Your task to perform on an android device: clear history in the chrome app Image 0: 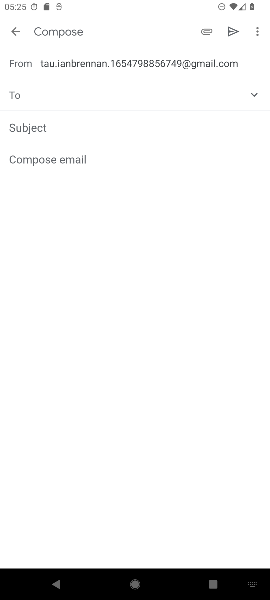
Step 0: press home button
Your task to perform on an android device: clear history in the chrome app Image 1: 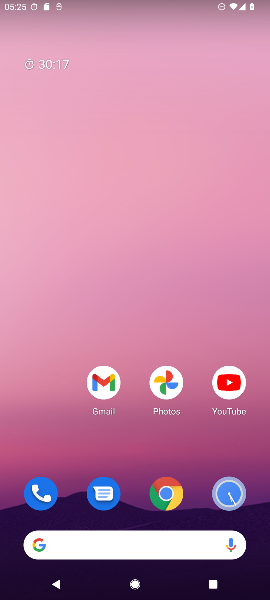
Step 1: drag from (65, 474) to (115, 130)
Your task to perform on an android device: clear history in the chrome app Image 2: 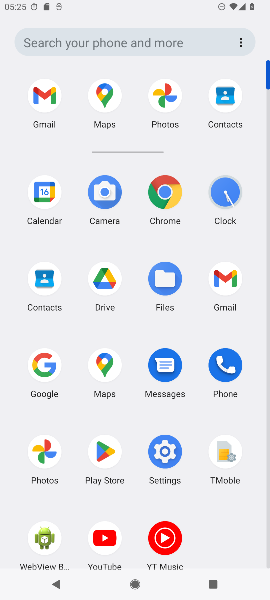
Step 2: click (169, 193)
Your task to perform on an android device: clear history in the chrome app Image 3: 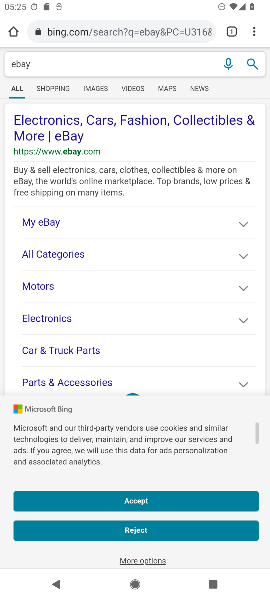
Step 3: click (254, 27)
Your task to perform on an android device: clear history in the chrome app Image 4: 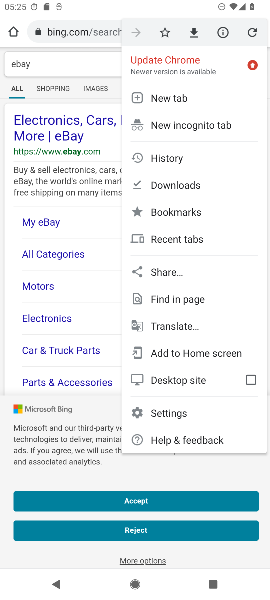
Step 4: click (179, 156)
Your task to perform on an android device: clear history in the chrome app Image 5: 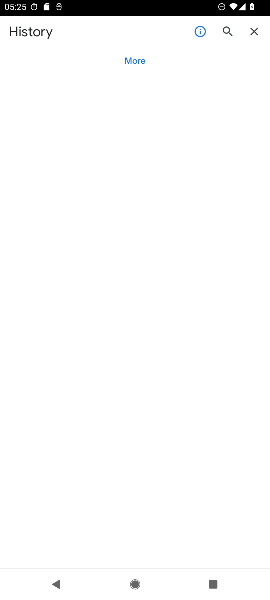
Step 5: task complete